Your task to perform on an android device: Go to Maps Image 0: 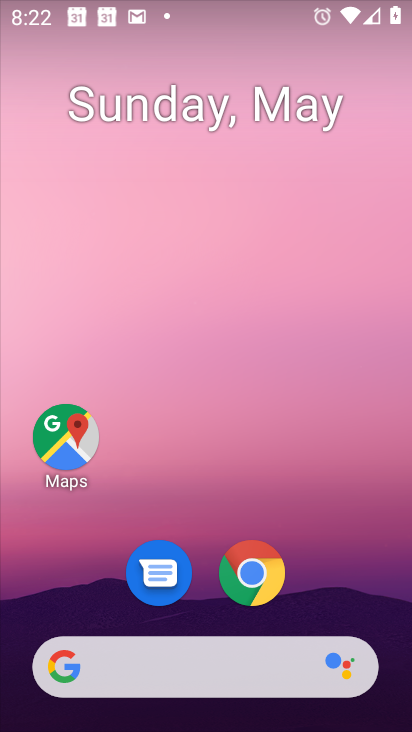
Step 0: click (60, 425)
Your task to perform on an android device: Go to Maps Image 1: 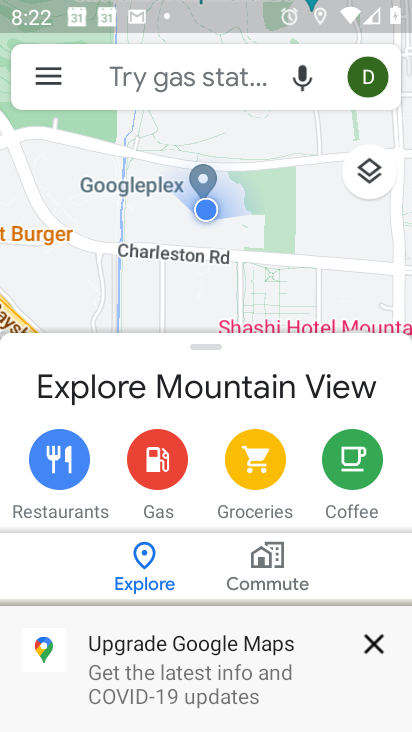
Step 1: task complete